Your task to perform on an android device: Set an alarm for 7am Image 0: 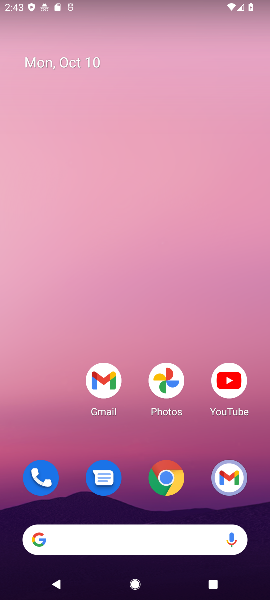
Step 0: drag from (148, 505) to (153, 44)
Your task to perform on an android device: Set an alarm for 7am Image 1: 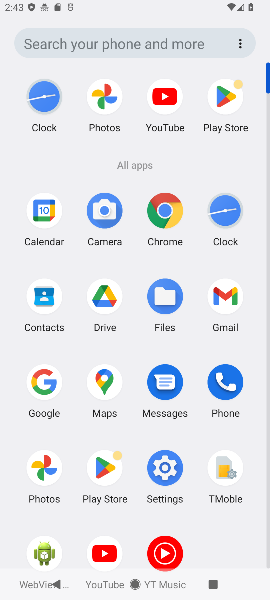
Step 1: click (222, 209)
Your task to perform on an android device: Set an alarm for 7am Image 2: 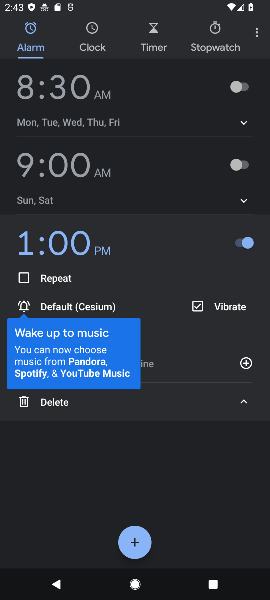
Step 2: click (132, 546)
Your task to perform on an android device: Set an alarm for 7am Image 3: 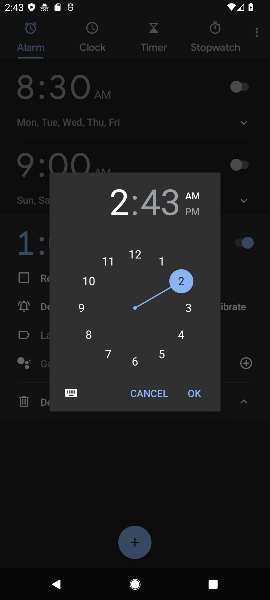
Step 3: click (108, 358)
Your task to perform on an android device: Set an alarm for 7am Image 4: 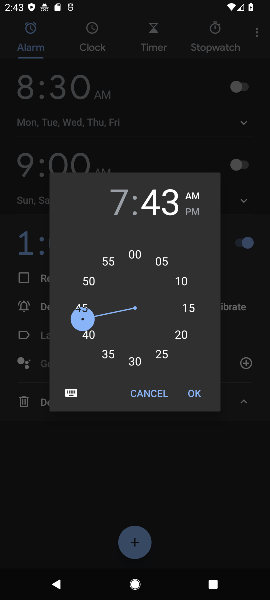
Step 4: click (134, 257)
Your task to perform on an android device: Set an alarm for 7am Image 5: 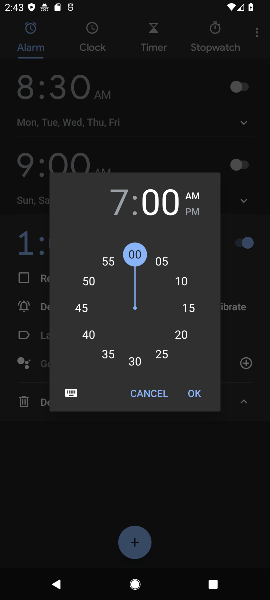
Step 5: click (201, 395)
Your task to perform on an android device: Set an alarm for 7am Image 6: 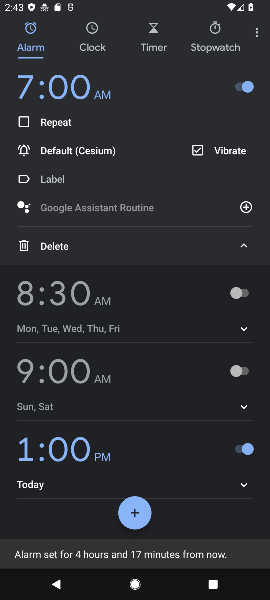
Step 6: task complete